Your task to perform on an android device: turn on notifications settings in the gmail app Image 0: 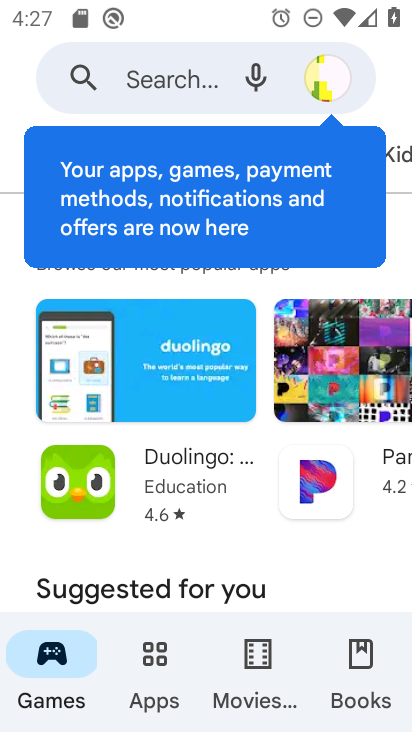
Step 0: task complete